Your task to perform on an android device: Go to Wikipedia Image 0: 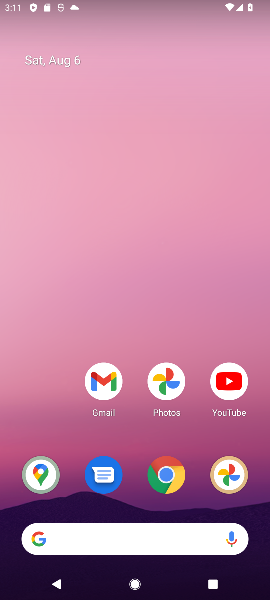
Step 0: click (81, 537)
Your task to perform on an android device: Go to Wikipedia Image 1: 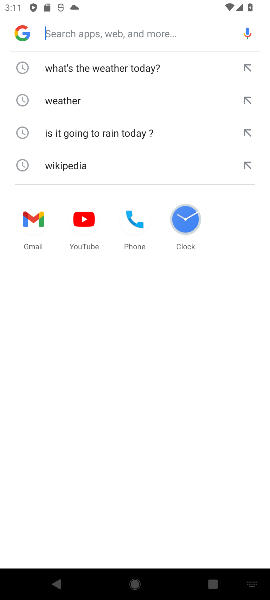
Step 1: click (76, 166)
Your task to perform on an android device: Go to Wikipedia Image 2: 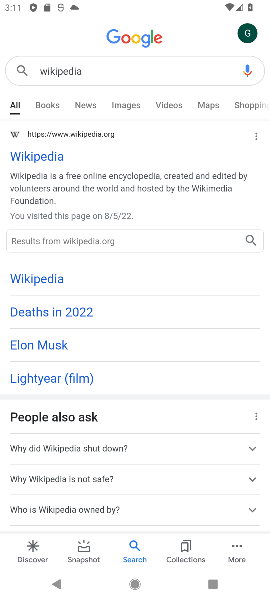
Step 2: task complete